Your task to perform on an android device: allow cookies in the chrome app Image 0: 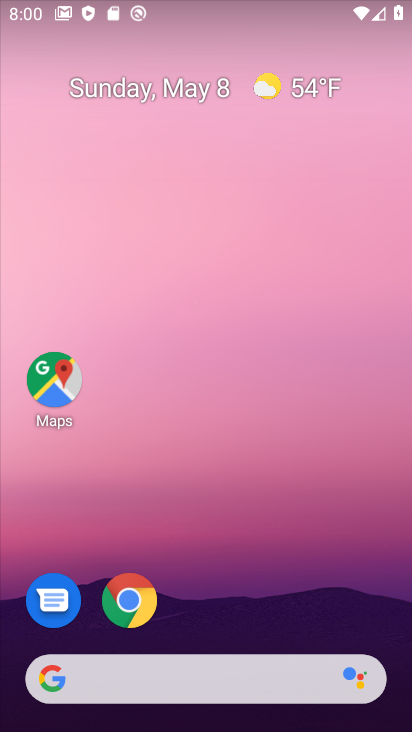
Step 0: click (134, 605)
Your task to perform on an android device: allow cookies in the chrome app Image 1: 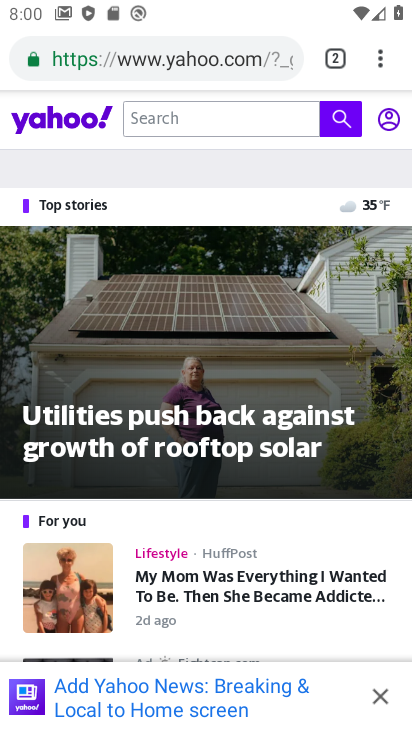
Step 1: click (371, 54)
Your task to perform on an android device: allow cookies in the chrome app Image 2: 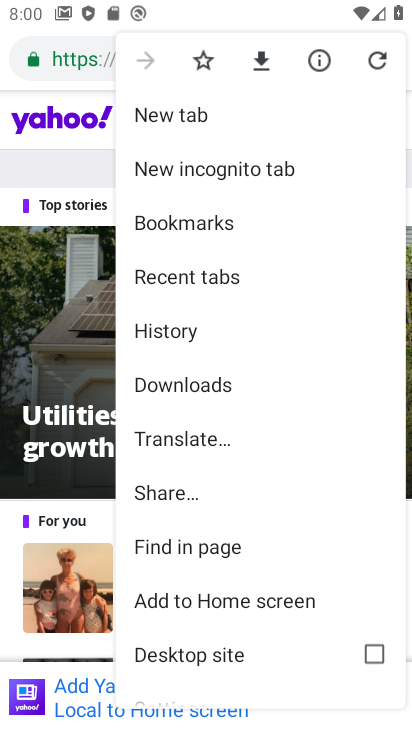
Step 2: drag from (162, 652) to (212, 146)
Your task to perform on an android device: allow cookies in the chrome app Image 3: 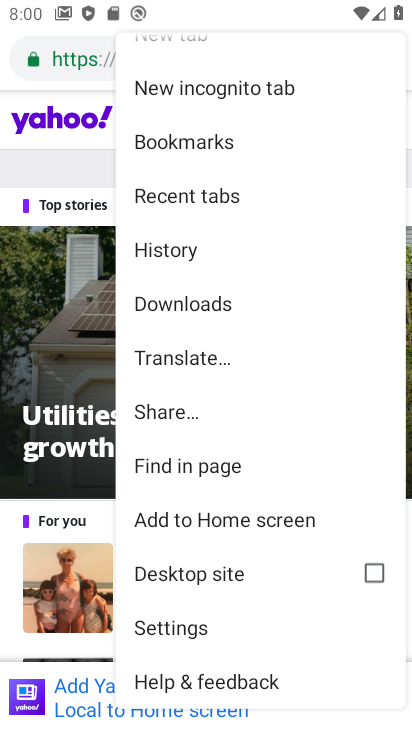
Step 3: click (221, 642)
Your task to perform on an android device: allow cookies in the chrome app Image 4: 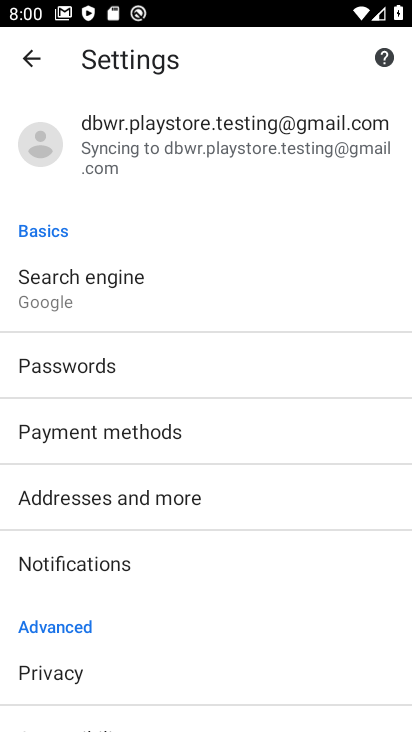
Step 4: drag from (163, 703) to (202, 398)
Your task to perform on an android device: allow cookies in the chrome app Image 5: 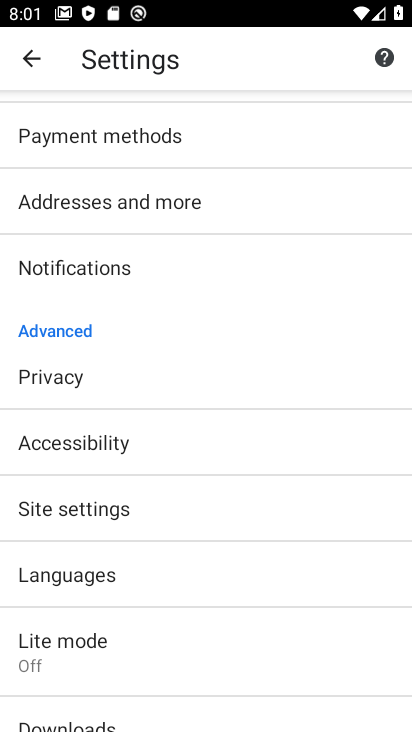
Step 5: click (204, 488)
Your task to perform on an android device: allow cookies in the chrome app Image 6: 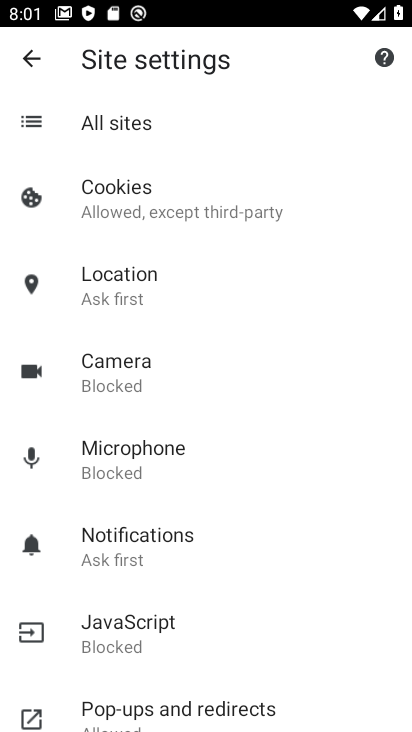
Step 6: click (178, 203)
Your task to perform on an android device: allow cookies in the chrome app Image 7: 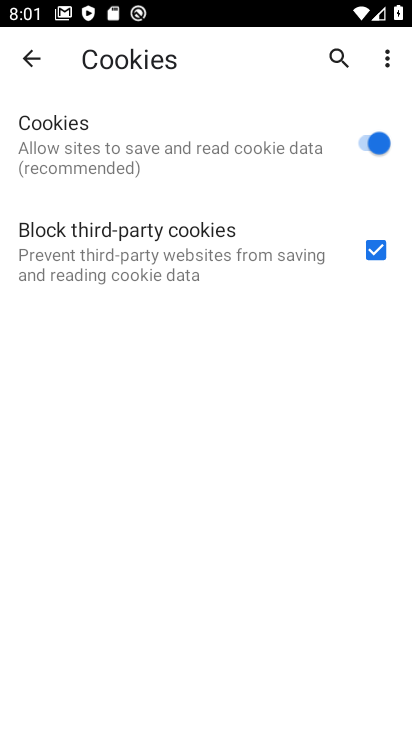
Step 7: task complete